Your task to perform on an android device: change text size in settings app Image 0: 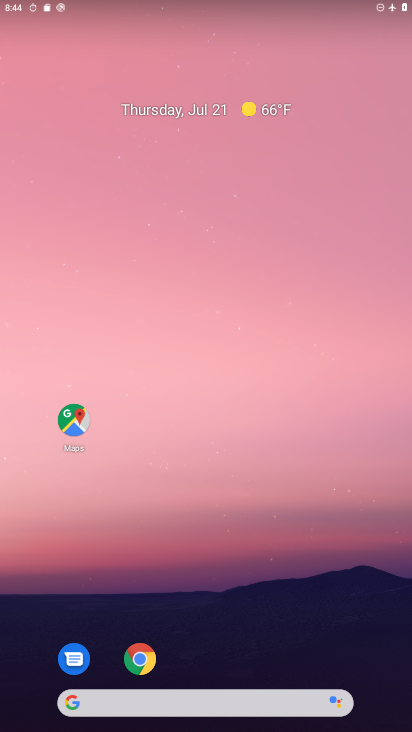
Step 0: drag from (183, 668) to (262, 212)
Your task to perform on an android device: change text size in settings app Image 1: 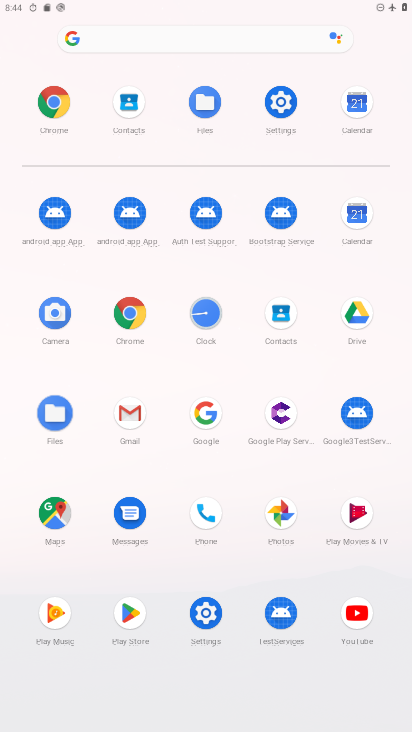
Step 1: click (211, 612)
Your task to perform on an android device: change text size in settings app Image 2: 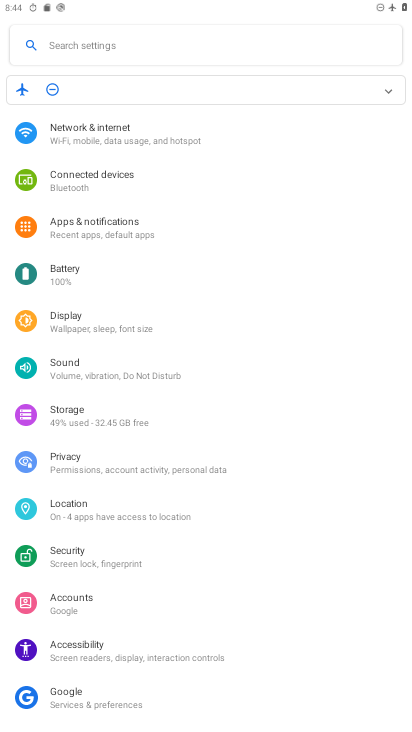
Step 2: click (113, 314)
Your task to perform on an android device: change text size in settings app Image 3: 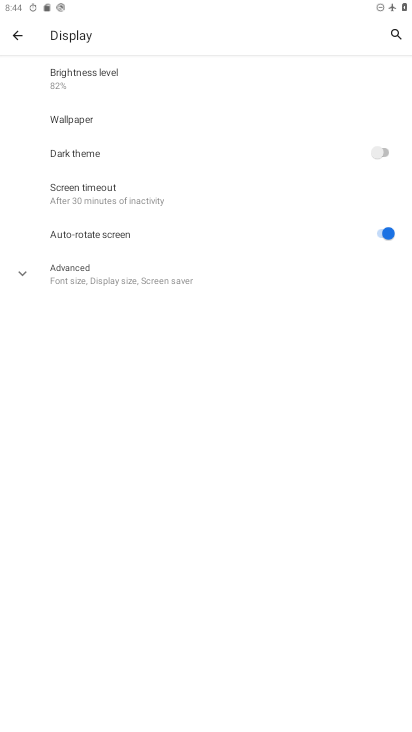
Step 3: drag from (155, 444) to (199, 253)
Your task to perform on an android device: change text size in settings app Image 4: 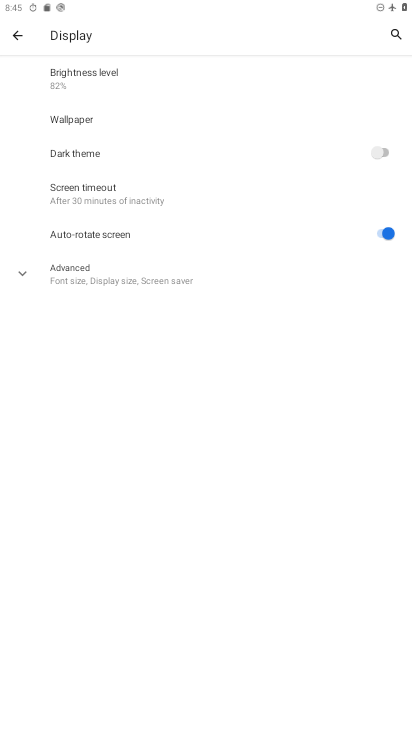
Step 4: drag from (212, 392) to (237, 190)
Your task to perform on an android device: change text size in settings app Image 5: 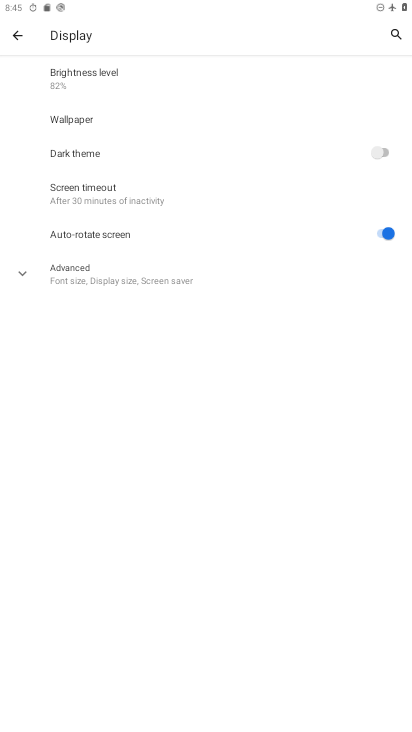
Step 5: click (102, 264)
Your task to perform on an android device: change text size in settings app Image 6: 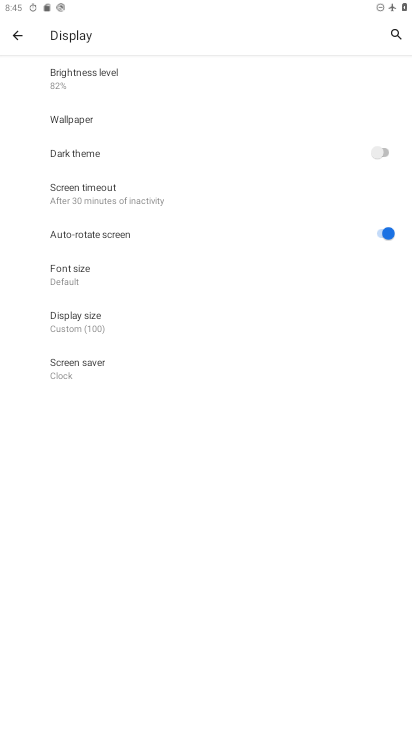
Step 6: drag from (228, 481) to (217, 202)
Your task to perform on an android device: change text size in settings app Image 7: 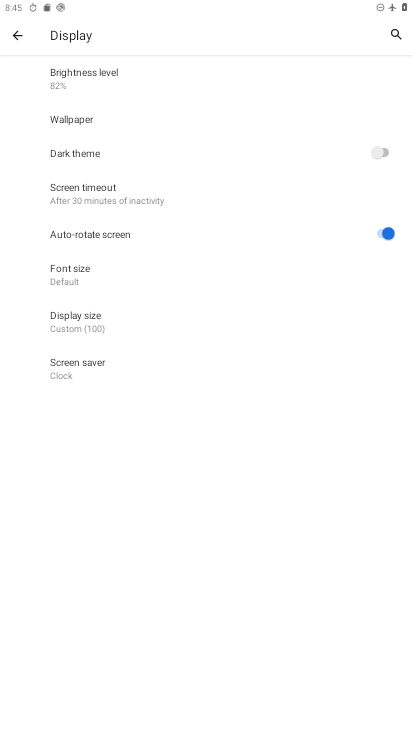
Step 7: click (111, 270)
Your task to perform on an android device: change text size in settings app Image 8: 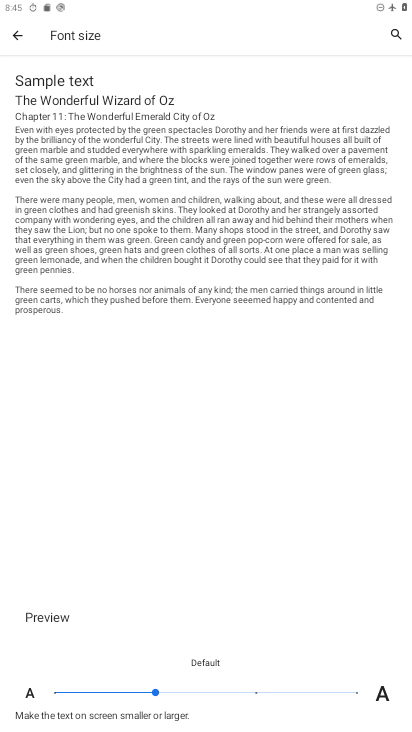
Step 8: drag from (232, 565) to (192, 297)
Your task to perform on an android device: change text size in settings app Image 9: 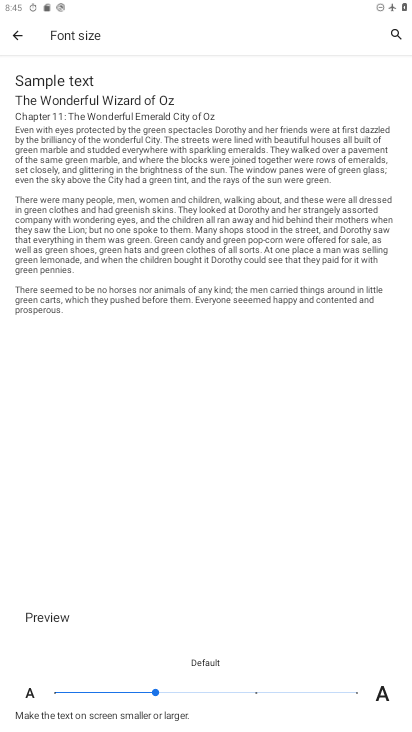
Step 9: click (345, 684)
Your task to perform on an android device: change text size in settings app Image 10: 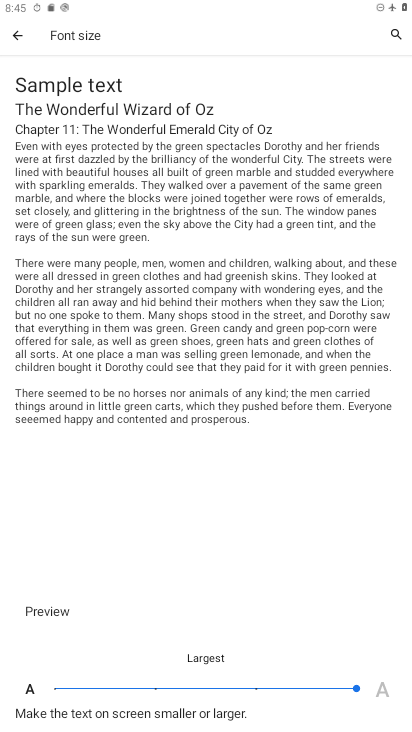
Step 10: task complete